Your task to perform on an android device: turn off sleep mode Image 0: 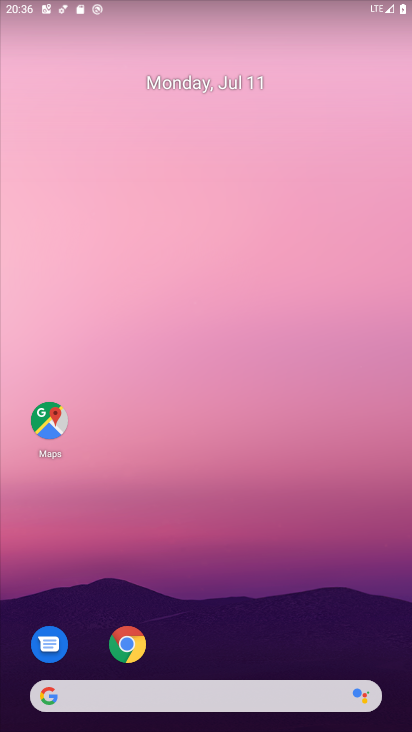
Step 0: drag from (234, 611) to (210, 116)
Your task to perform on an android device: turn off sleep mode Image 1: 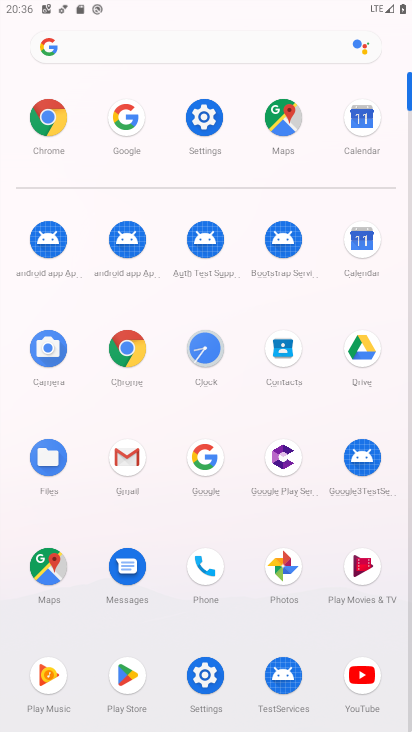
Step 1: click (208, 107)
Your task to perform on an android device: turn off sleep mode Image 2: 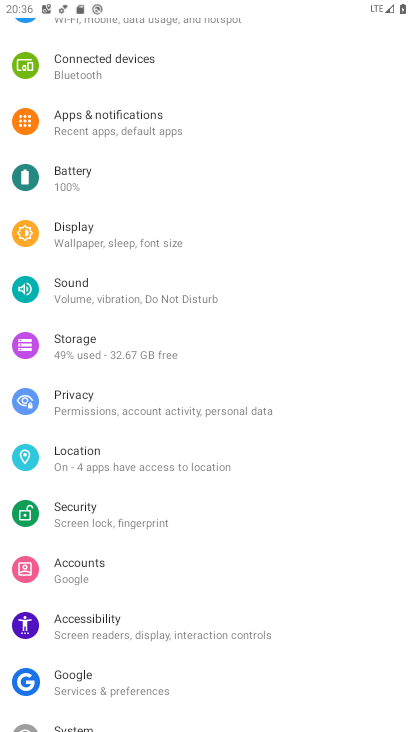
Step 2: task complete